Your task to perform on an android device: read, delete, or share a saved page in the chrome app Image 0: 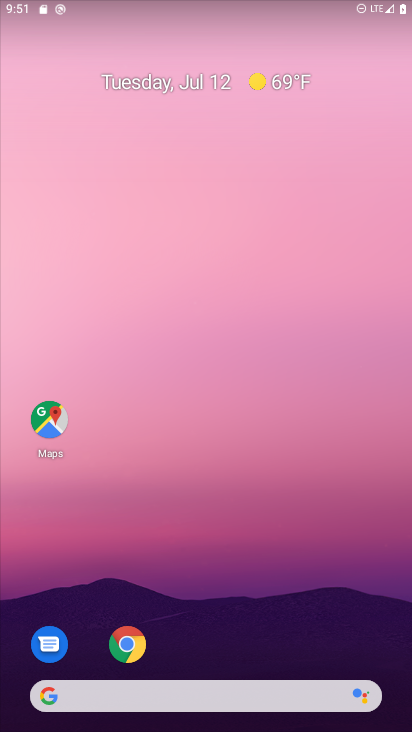
Step 0: press home button
Your task to perform on an android device: read, delete, or share a saved page in the chrome app Image 1: 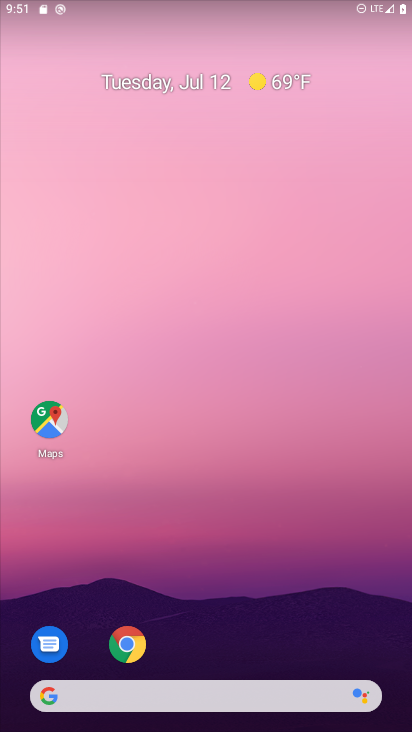
Step 1: click (126, 638)
Your task to perform on an android device: read, delete, or share a saved page in the chrome app Image 2: 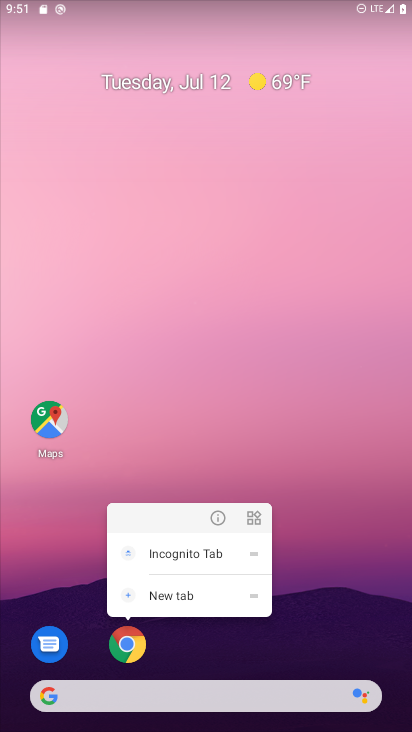
Step 2: click (126, 638)
Your task to perform on an android device: read, delete, or share a saved page in the chrome app Image 3: 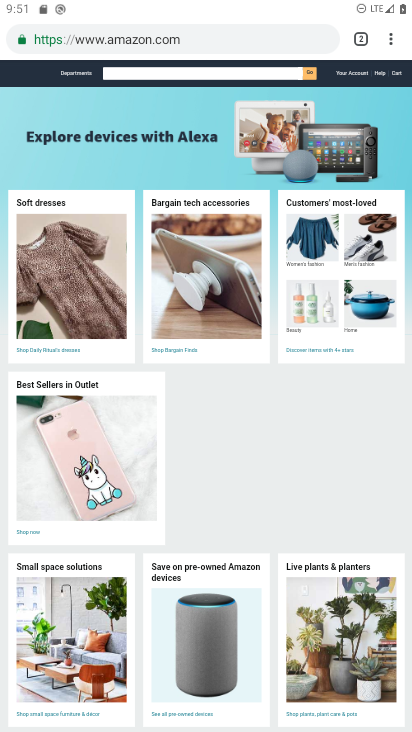
Step 3: click (389, 37)
Your task to perform on an android device: read, delete, or share a saved page in the chrome app Image 4: 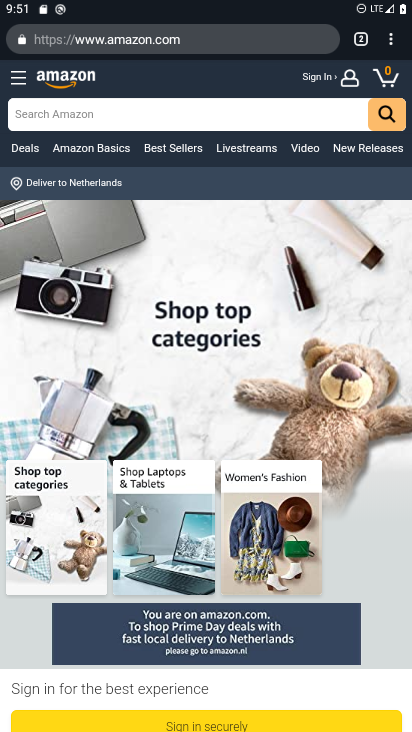
Step 4: click (389, 37)
Your task to perform on an android device: read, delete, or share a saved page in the chrome app Image 5: 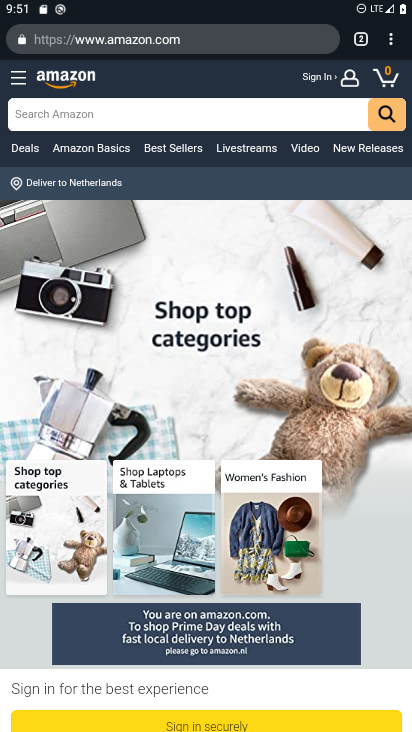
Step 5: click (391, 44)
Your task to perform on an android device: read, delete, or share a saved page in the chrome app Image 6: 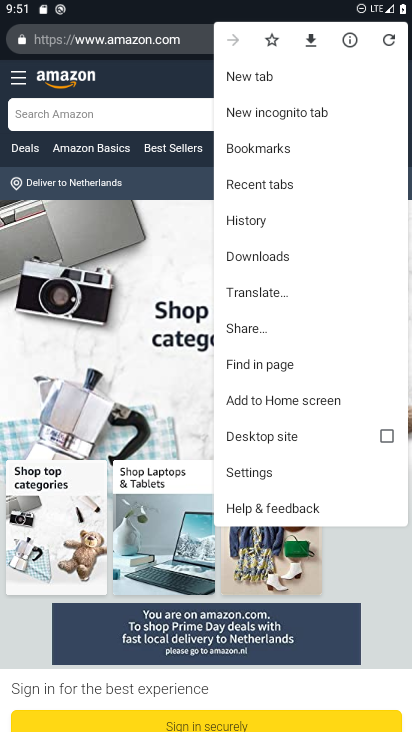
Step 6: click (295, 254)
Your task to perform on an android device: read, delete, or share a saved page in the chrome app Image 7: 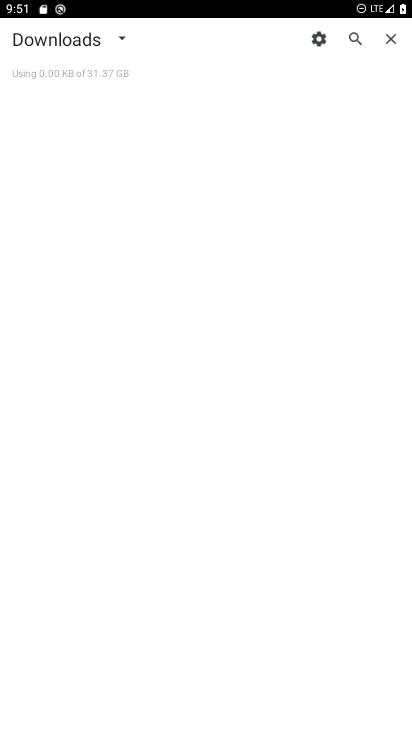
Step 7: task complete